Your task to perform on an android device: uninstall "Cash App" Image 0: 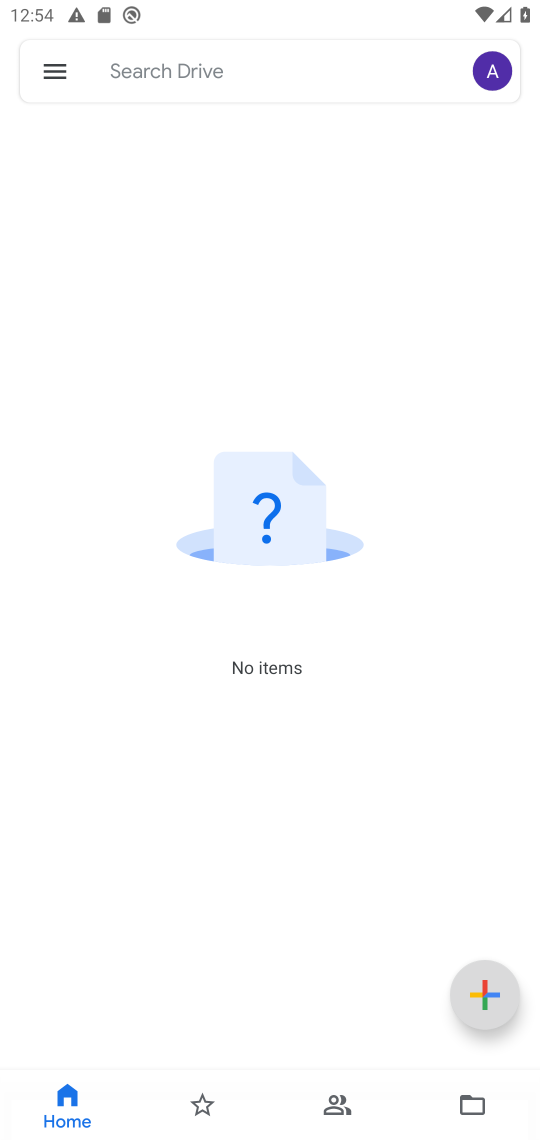
Step 0: press home button
Your task to perform on an android device: uninstall "Cash App" Image 1: 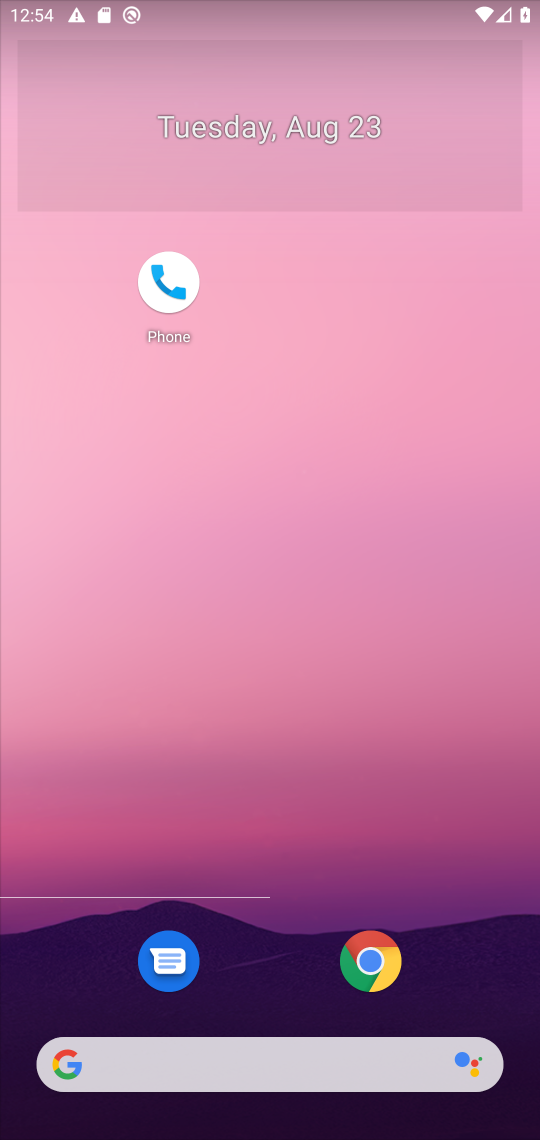
Step 1: drag from (254, 984) to (226, 66)
Your task to perform on an android device: uninstall "Cash App" Image 2: 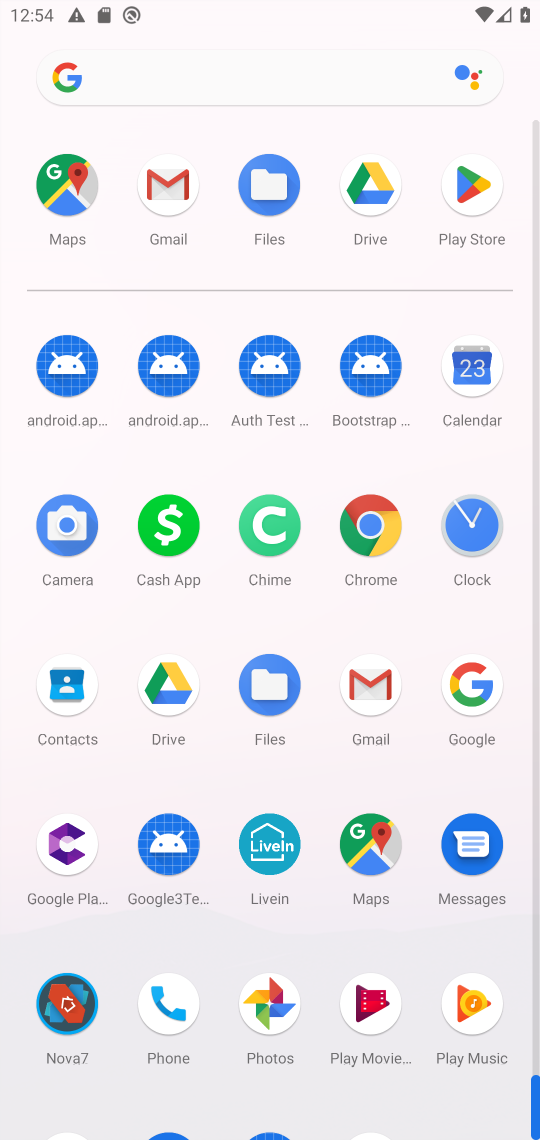
Step 2: click (465, 240)
Your task to perform on an android device: uninstall "Cash App" Image 3: 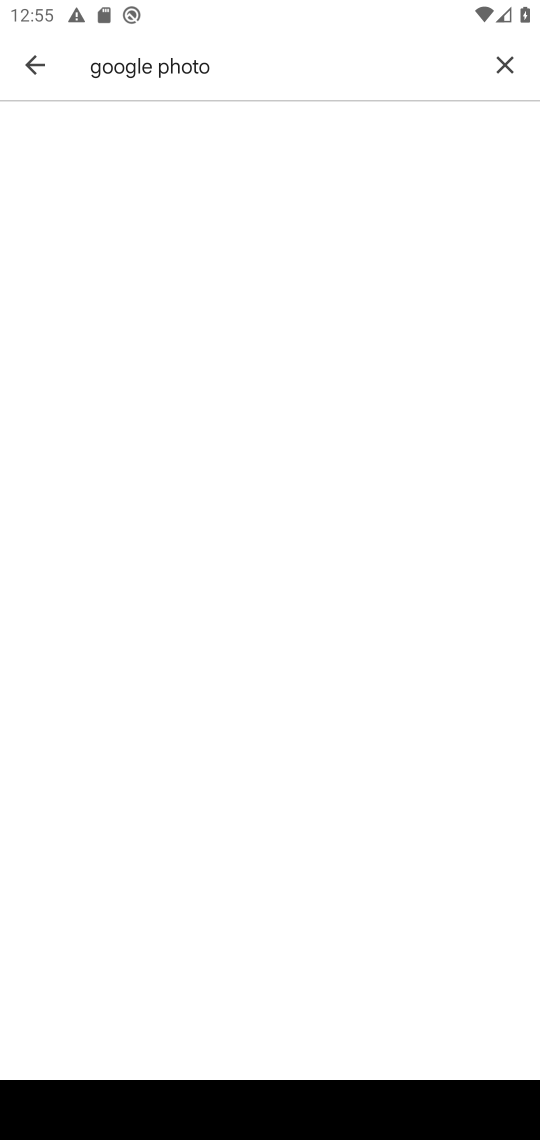
Step 3: click (501, 73)
Your task to perform on an android device: uninstall "Cash App" Image 4: 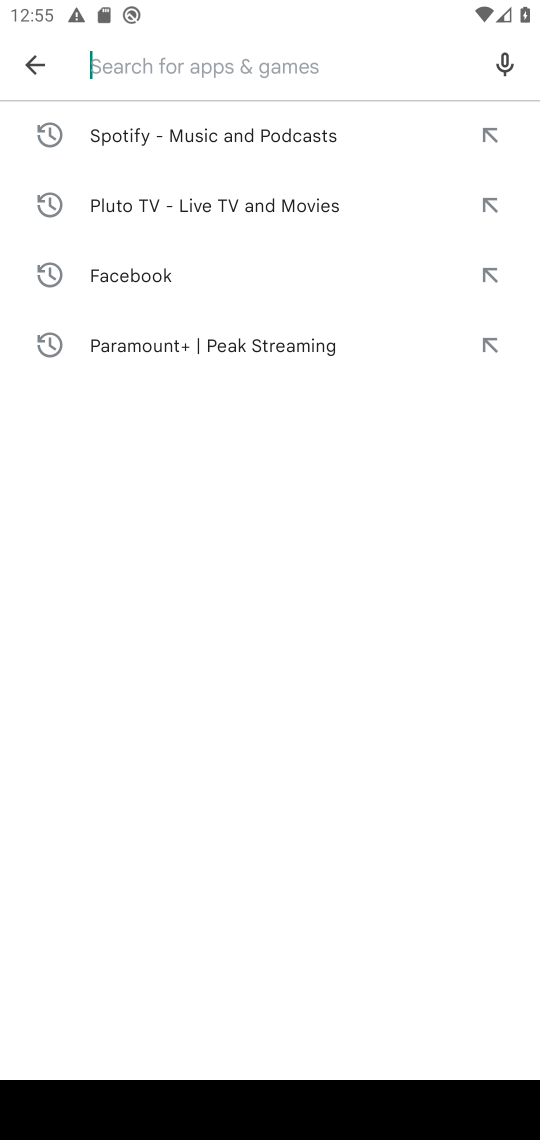
Step 4: task complete